Your task to perform on an android device: Go to Amazon Image 0: 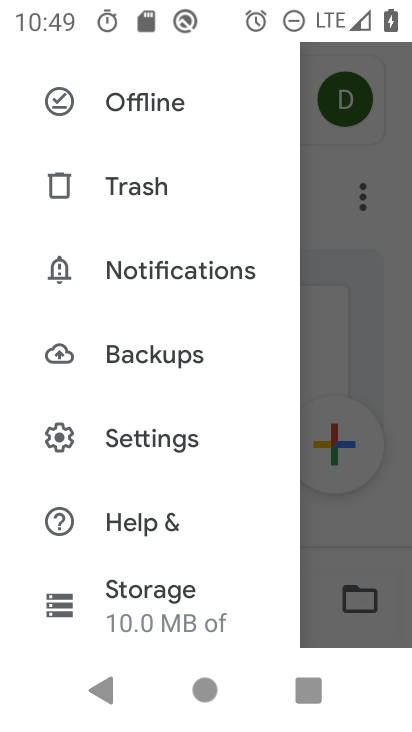
Step 0: press home button
Your task to perform on an android device: Go to Amazon Image 1: 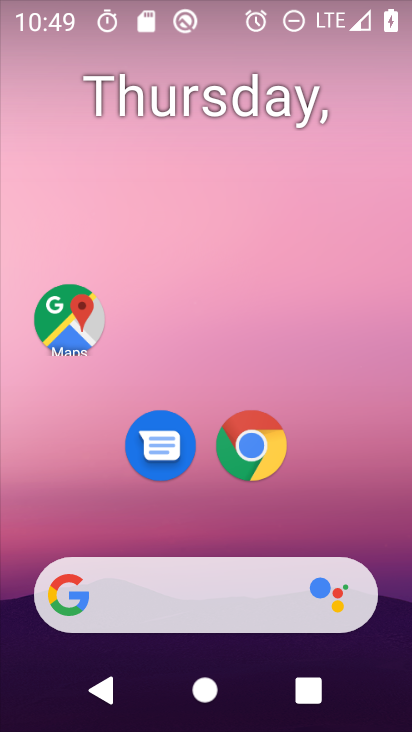
Step 1: drag from (177, 598) to (62, 28)
Your task to perform on an android device: Go to Amazon Image 2: 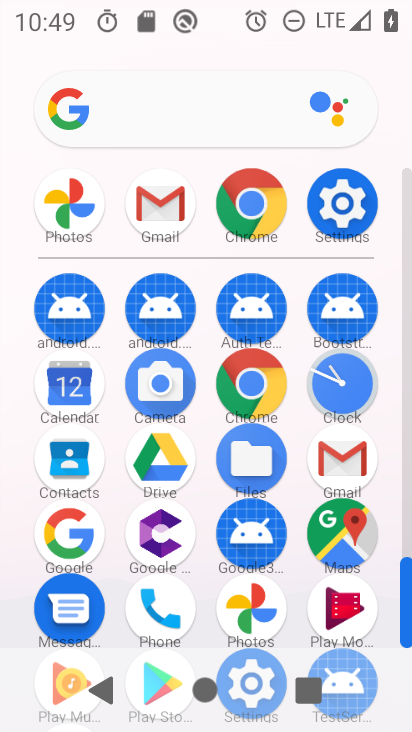
Step 2: click (214, 117)
Your task to perform on an android device: Go to Amazon Image 3: 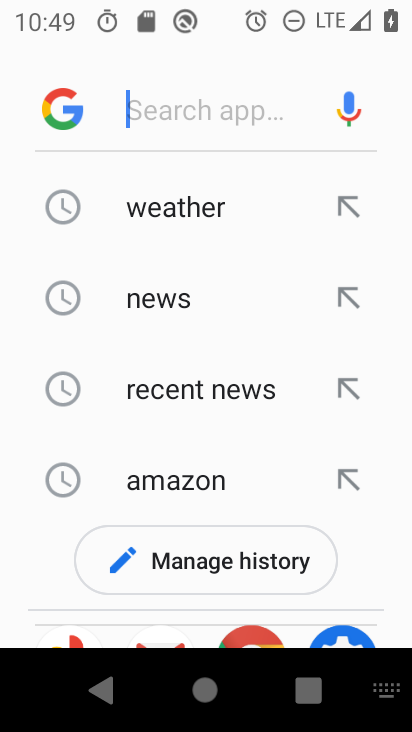
Step 3: click (181, 473)
Your task to perform on an android device: Go to Amazon Image 4: 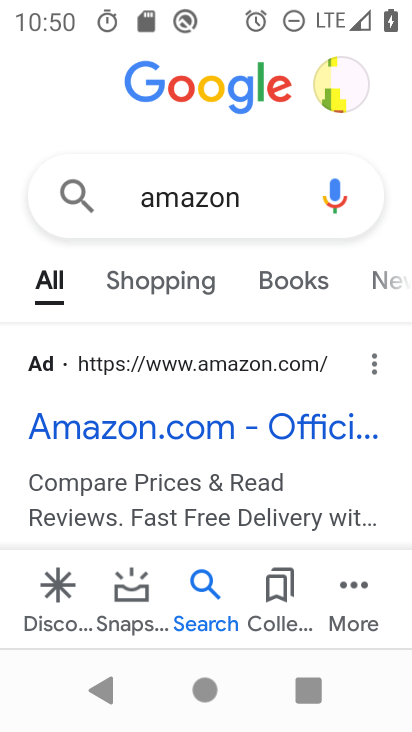
Step 4: click (115, 432)
Your task to perform on an android device: Go to Amazon Image 5: 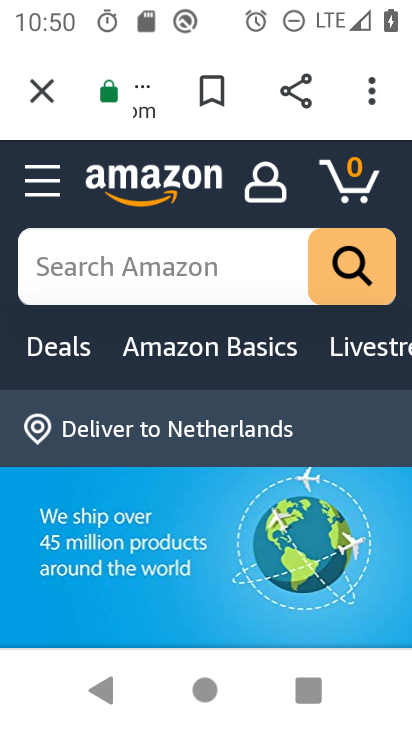
Step 5: task complete